Your task to perform on an android device: turn notification dots off Image 0: 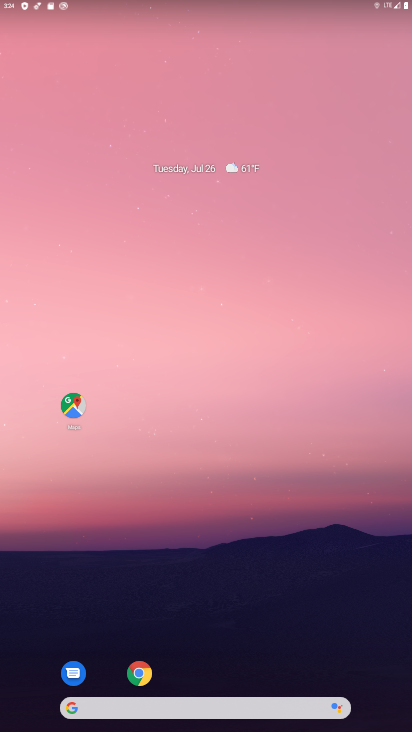
Step 0: press home button
Your task to perform on an android device: turn notification dots off Image 1: 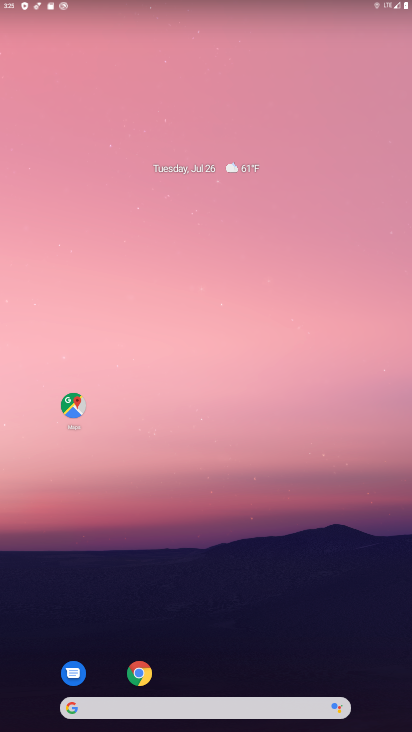
Step 1: drag from (219, 682) to (300, 98)
Your task to perform on an android device: turn notification dots off Image 2: 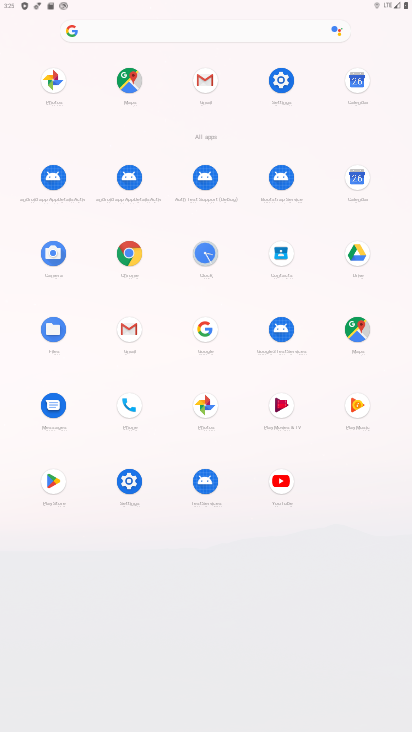
Step 2: click (129, 473)
Your task to perform on an android device: turn notification dots off Image 3: 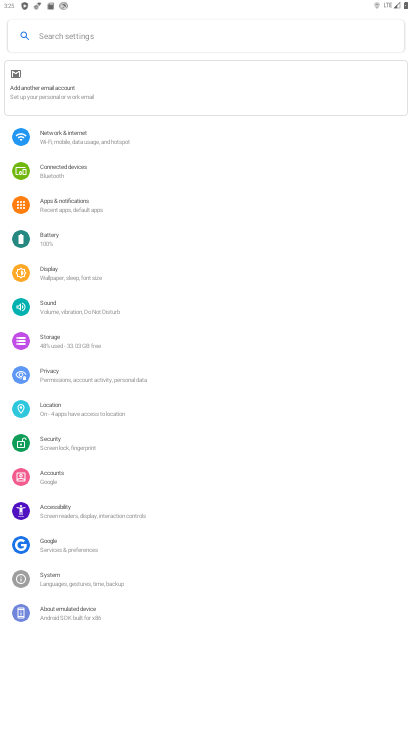
Step 3: click (101, 199)
Your task to perform on an android device: turn notification dots off Image 4: 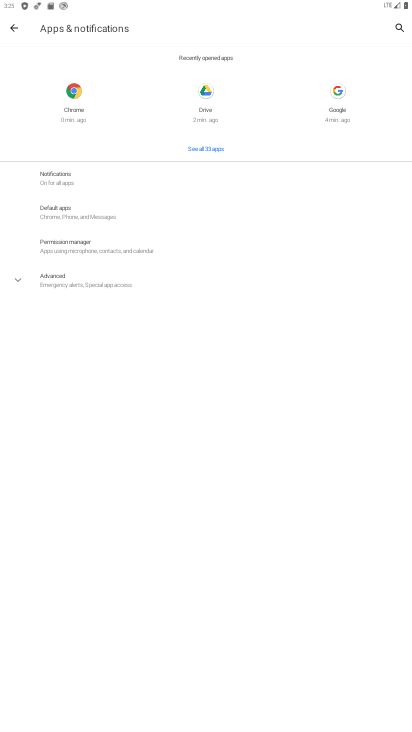
Step 4: click (19, 274)
Your task to perform on an android device: turn notification dots off Image 5: 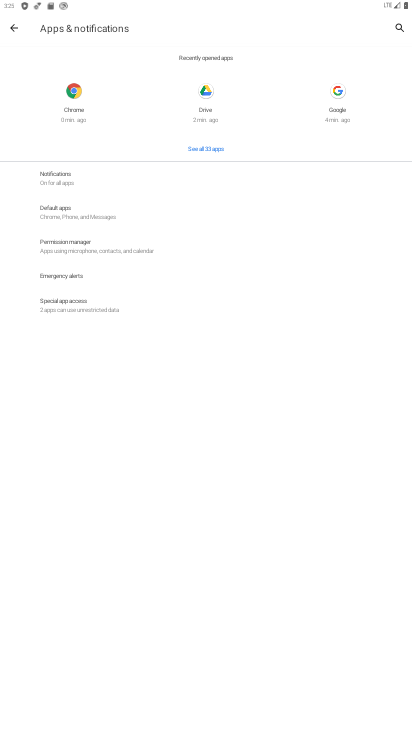
Step 5: click (72, 176)
Your task to perform on an android device: turn notification dots off Image 6: 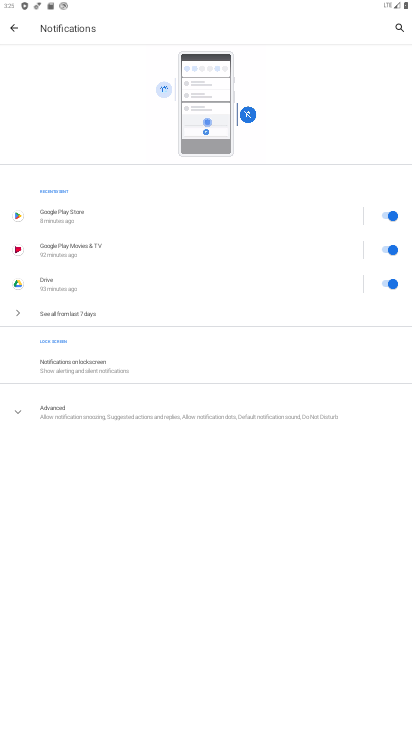
Step 6: click (27, 415)
Your task to perform on an android device: turn notification dots off Image 7: 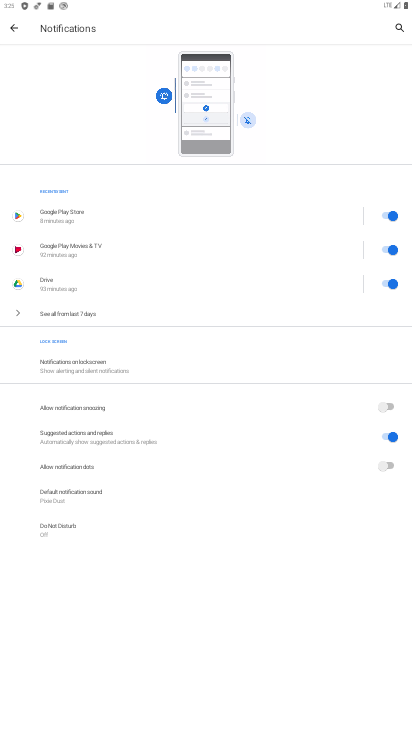
Step 7: task complete